Your task to perform on an android device: turn off notifications in google photos Image 0: 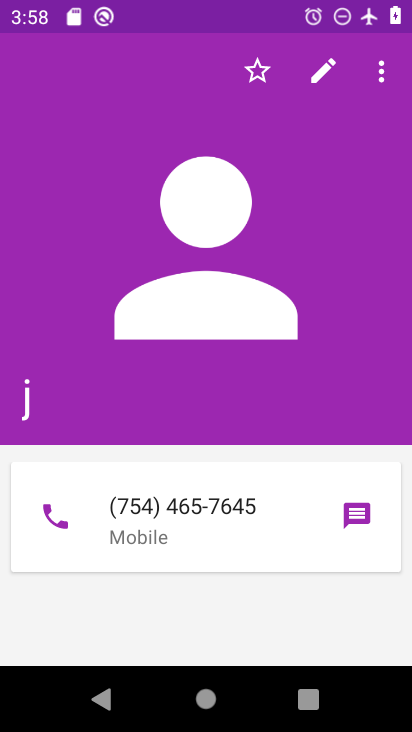
Step 0: press home button
Your task to perform on an android device: turn off notifications in google photos Image 1: 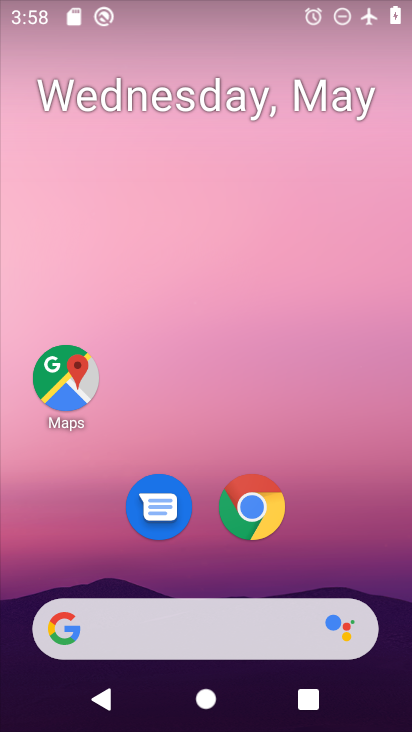
Step 1: drag from (196, 692) to (186, 211)
Your task to perform on an android device: turn off notifications in google photos Image 2: 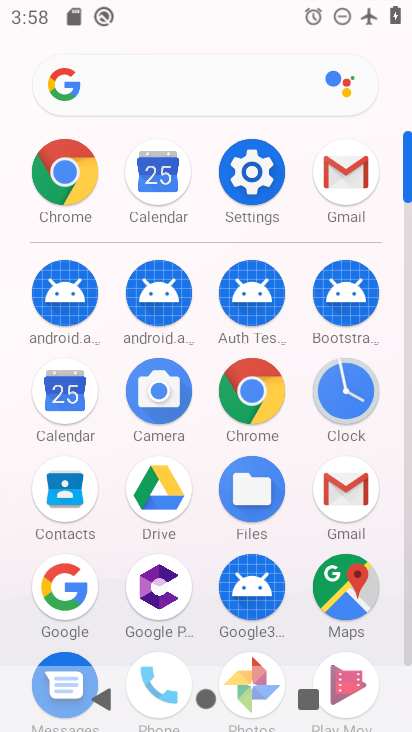
Step 2: drag from (193, 510) to (185, 380)
Your task to perform on an android device: turn off notifications in google photos Image 3: 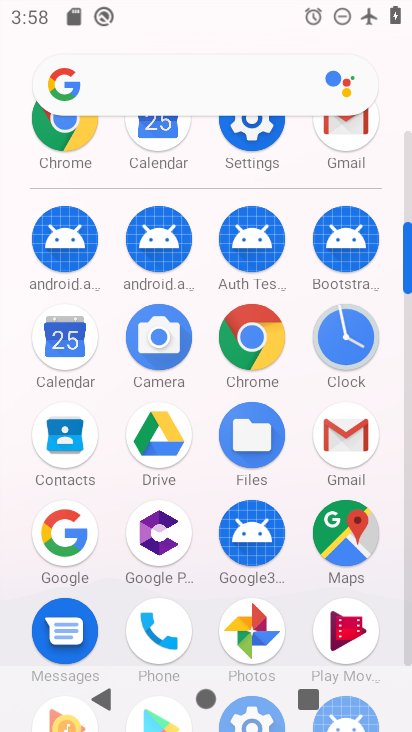
Step 3: click (243, 634)
Your task to perform on an android device: turn off notifications in google photos Image 4: 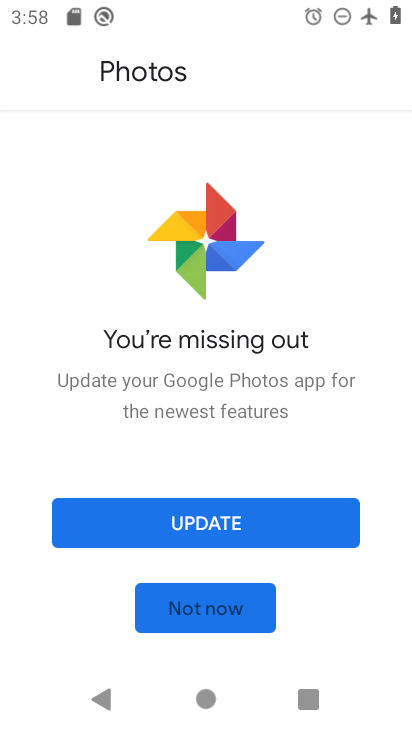
Step 4: click (214, 602)
Your task to perform on an android device: turn off notifications in google photos Image 5: 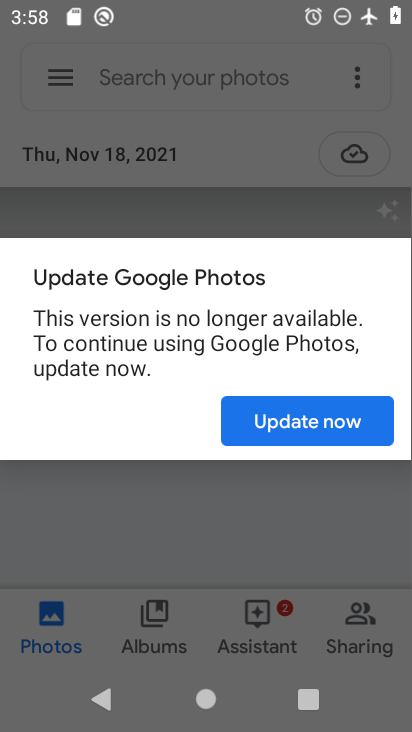
Step 5: task complete